Your task to perform on an android device: Go to battery settings Image 0: 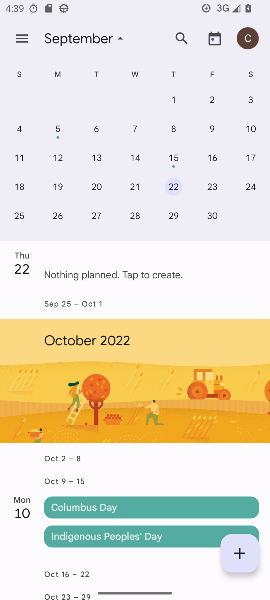
Step 0: press back button
Your task to perform on an android device: Go to battery settings Image 1: 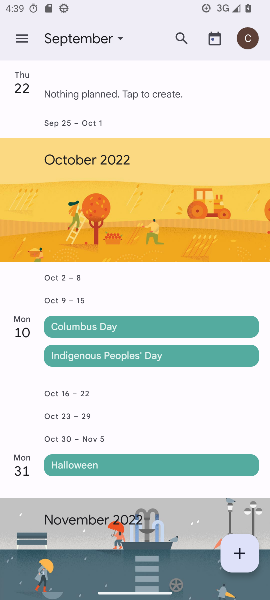
Step 1: press home button
Your task to perform on an android device: Go to battery settings Image 2: 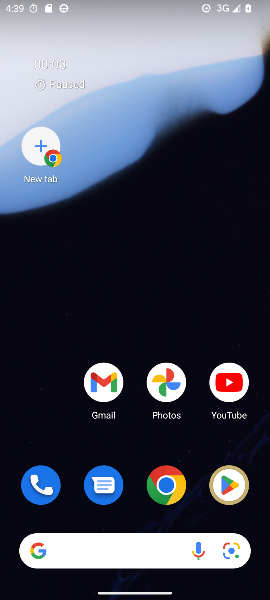
Step 2: press back button
Your task to perform on an android device: Go to battery settings Image 3: 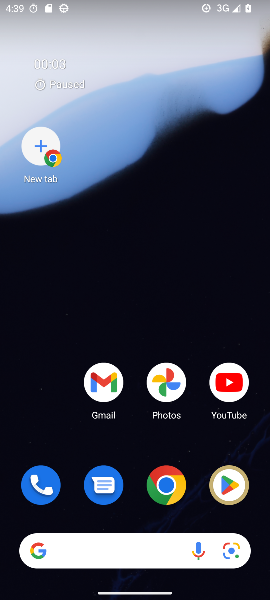
Step 3: drag from (183, 551) to (137, 191)
Your task to perform on an android device: Go to battery settings Image 4: 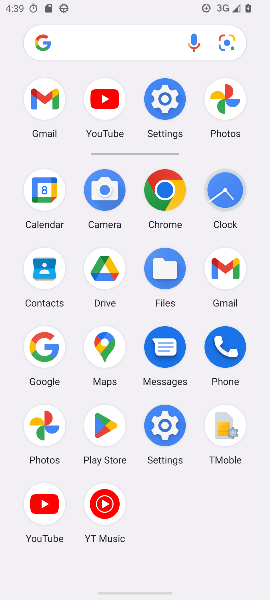
Step 4: drag from (165, 482) to (102, 83)
Your task to perform on an android device: Go to battery settings Image 5: 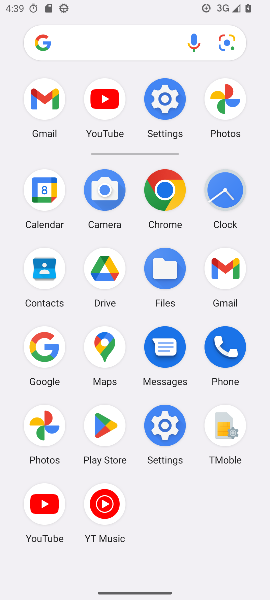
Step 5: click (146, 421)
Your task to perform on an android device: Go to battery settings Image 6: 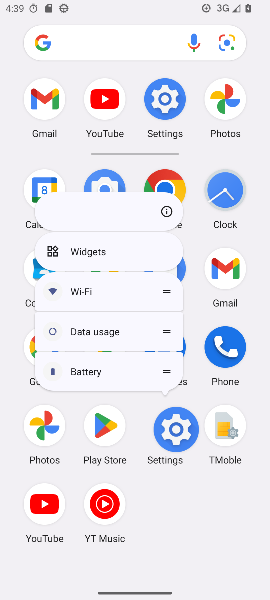
Step 6: click (158, 424)
Your task to perform on an android device: Go to battery settings Image 7: 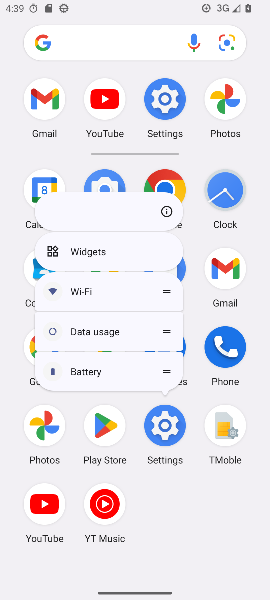
Step 7: click (163, 428)
Your task to perform on an android device: Go to battery settings Image 8: 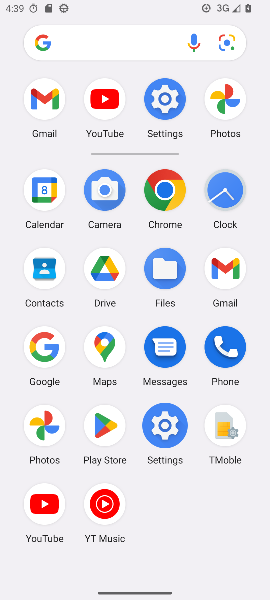
Step 8: click (169, 429)
Your task to perform on an android device: Go to battery settings Image 9: 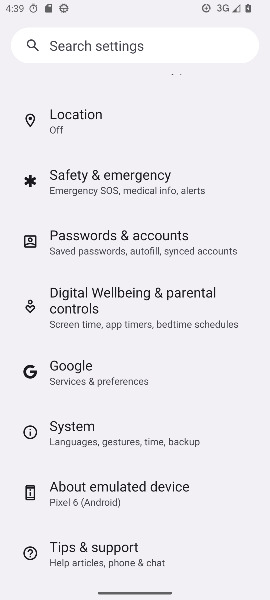
Step 9: click (171, 429)
Your task to perform on an android device: Go to battery settings Image 10: 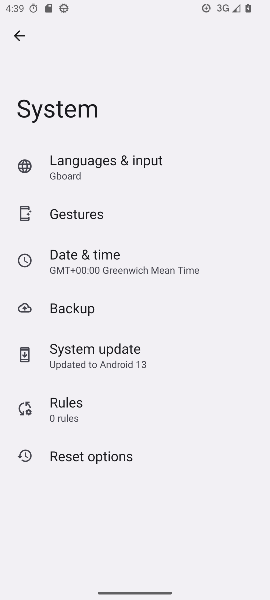
Step 10: click (9, 40)
Your task to perform on an android device: Go to battery settings Image 11: 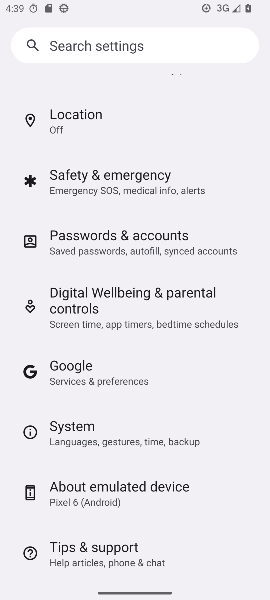
Step 11: drag from (99, 445) to (67, 158)
Your task to perform on an android device: Go to battery settings Image 12: 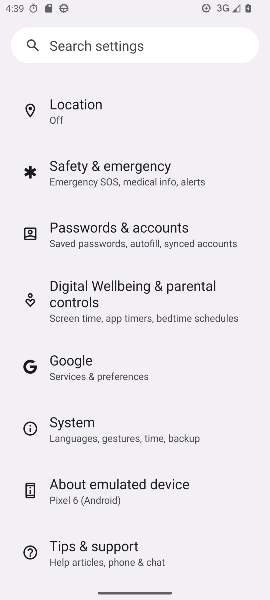
Step 12: drag from (62, 463) to (83, 191)
Your task to perform on an android device: Go to battery settings Image 13: 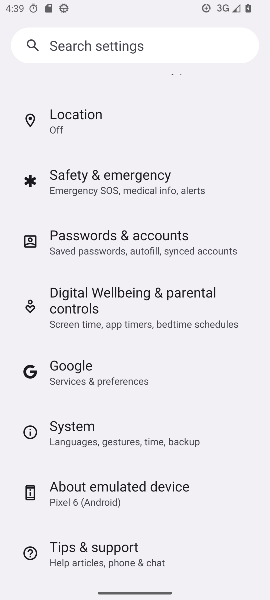
Step 13: drag from (71, 182) to (118, 437)
Your task to perform on an android device: Go to battery settings Image 14: 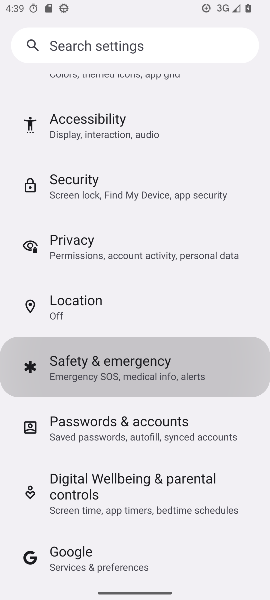
Step 14: drag from (99, 222) to (126, 385)
Your task to perform on an android device: Go to battery settings Image 15: 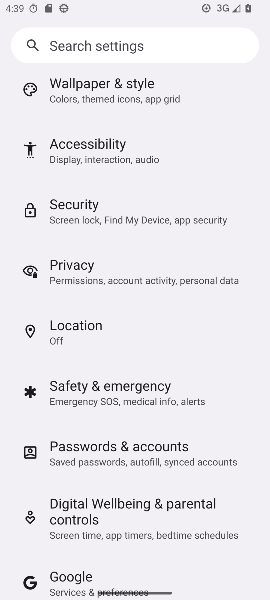
Step 15: drag from (112, 109) to (117, 420)
Your task to perform on an android device: Go to battery settings Image 16: 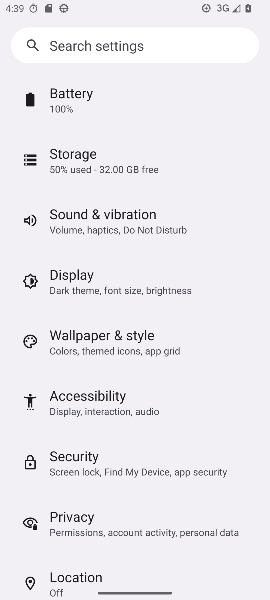
Step 16: drag from (63, 215) to (95, 443)
Your task to perform on an android device: Go to battery settings Image 17: 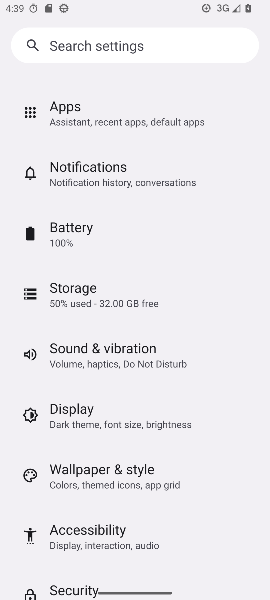
Step 17: click (68, 234)
Your task to perform on an android device: Go to battery settings Image 18: 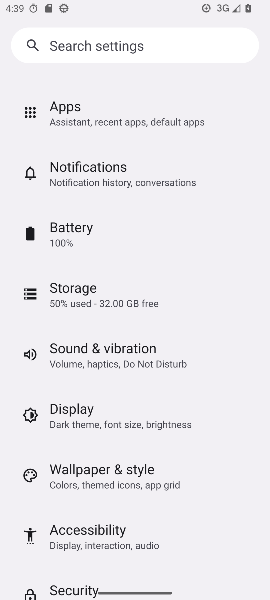
Step 18: click (68, 234)
Your task to perform on an android device: Go to battery settings Image 19: 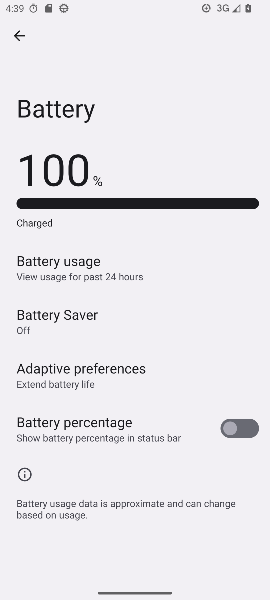
Step 19: click (23, 31)
Your task to perform on an android device: Go to battery settings Image 20: 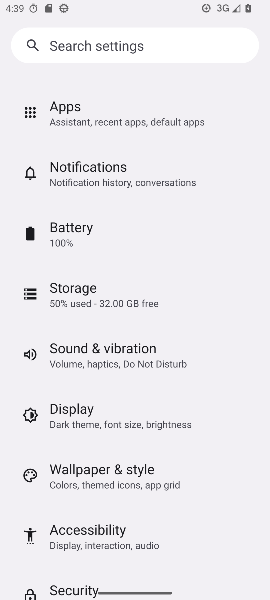
Step 20: click (80, 226)
Your task to perform on an android device: Go to battery settings Image 21: 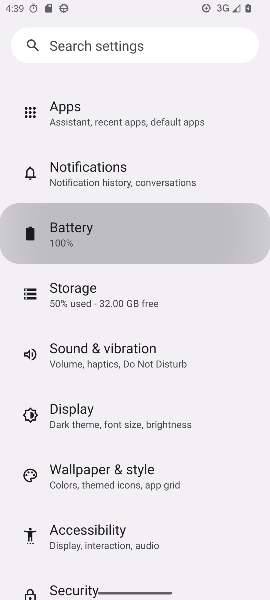
Step 21: click (78, 226)
Your task to perform on an android device: Go to battery settings Image 22: 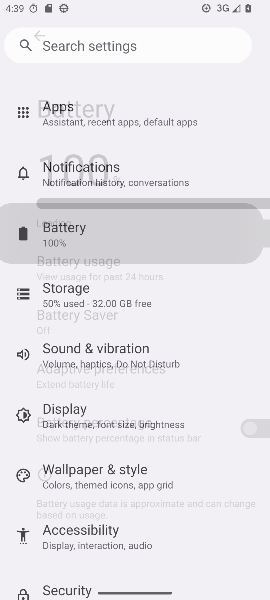
Step 22: click (81, 226)
Your task to perform on an android device: Go to battery settings Image 23: 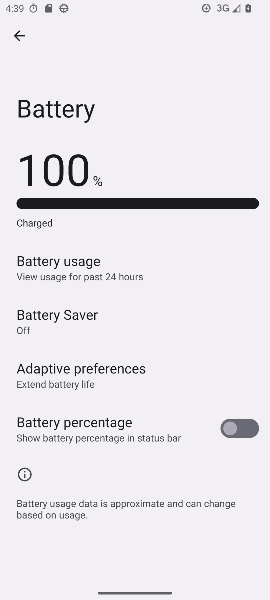
Step 23: task complete